Your task to perform on an android device: Open Youtube and go to "Your channel" Image 0: 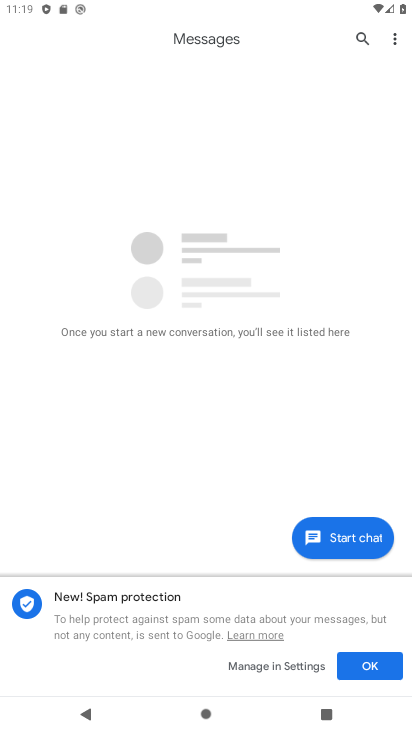
Step 0: press home button
Your task to perform on an android device: Open Youtube and go to "Your channel" Image 1: 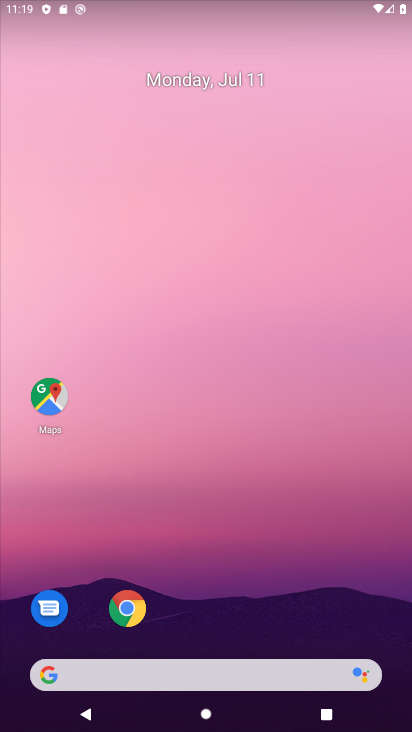
Step 1: drag from (212, 623) to (258, 15)
Your task to perform on an android device: Open Youtube and go to "Your channel" Image 2: 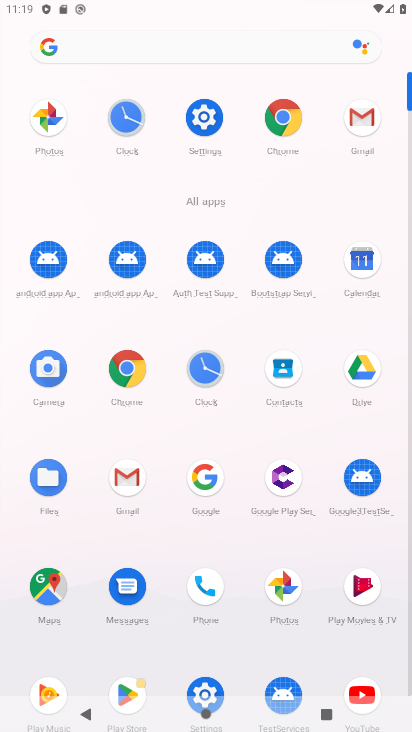
Step 2: click (354, 686)
Your task to perform on an android device: Open Youtube and go to "Your channel" Image 3: 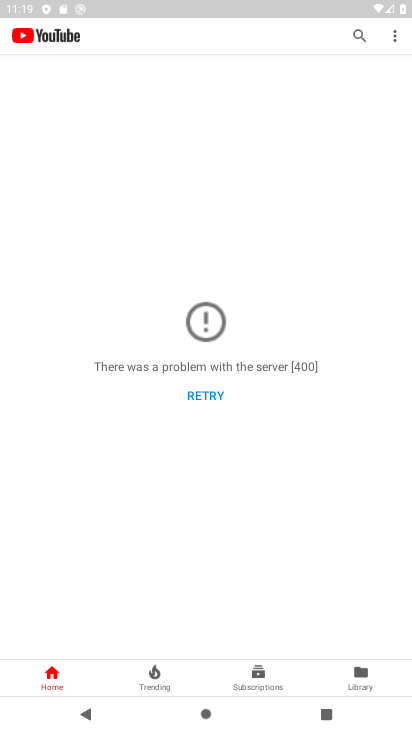
Step 3: click (356, 40)
Your task to perform on an android device: Open Youtube and go to "Your channel" Image 4: 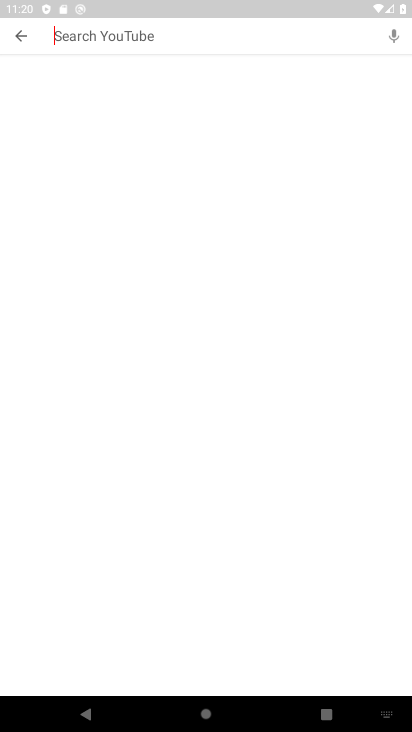
Step 4: type "your channel"
Your task to perform on an android device: Open Youtube and go to "Your channel" Image 5: 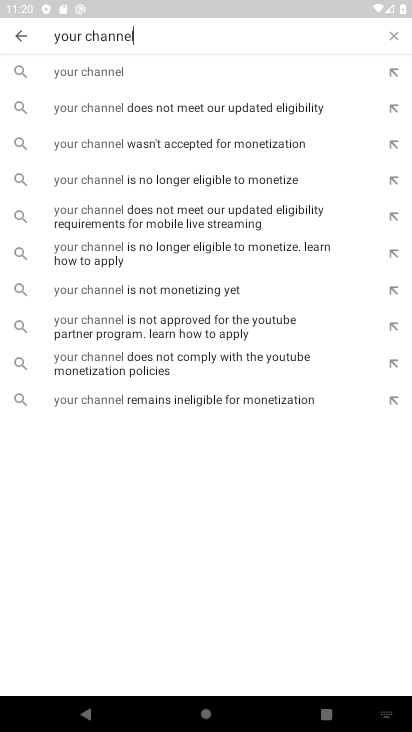
Step 5: click (137, 73)
Your task to perform on an android device: Open Youtube and go to "Your channel" Image 6: 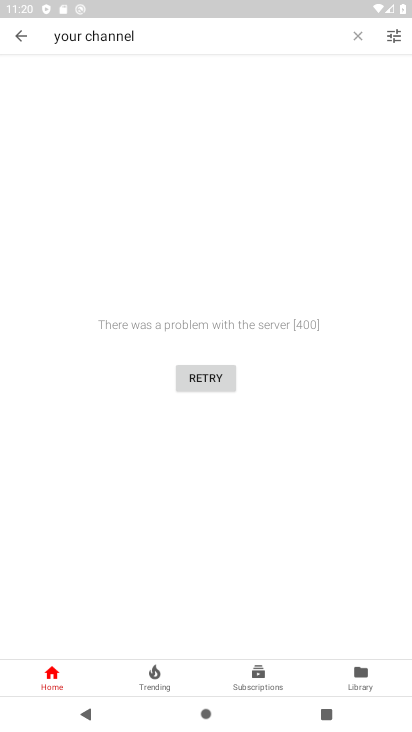
Step 6: task complete